Your task to perform on an android device: Open calendar and show me the fourth week of next month Image 0: 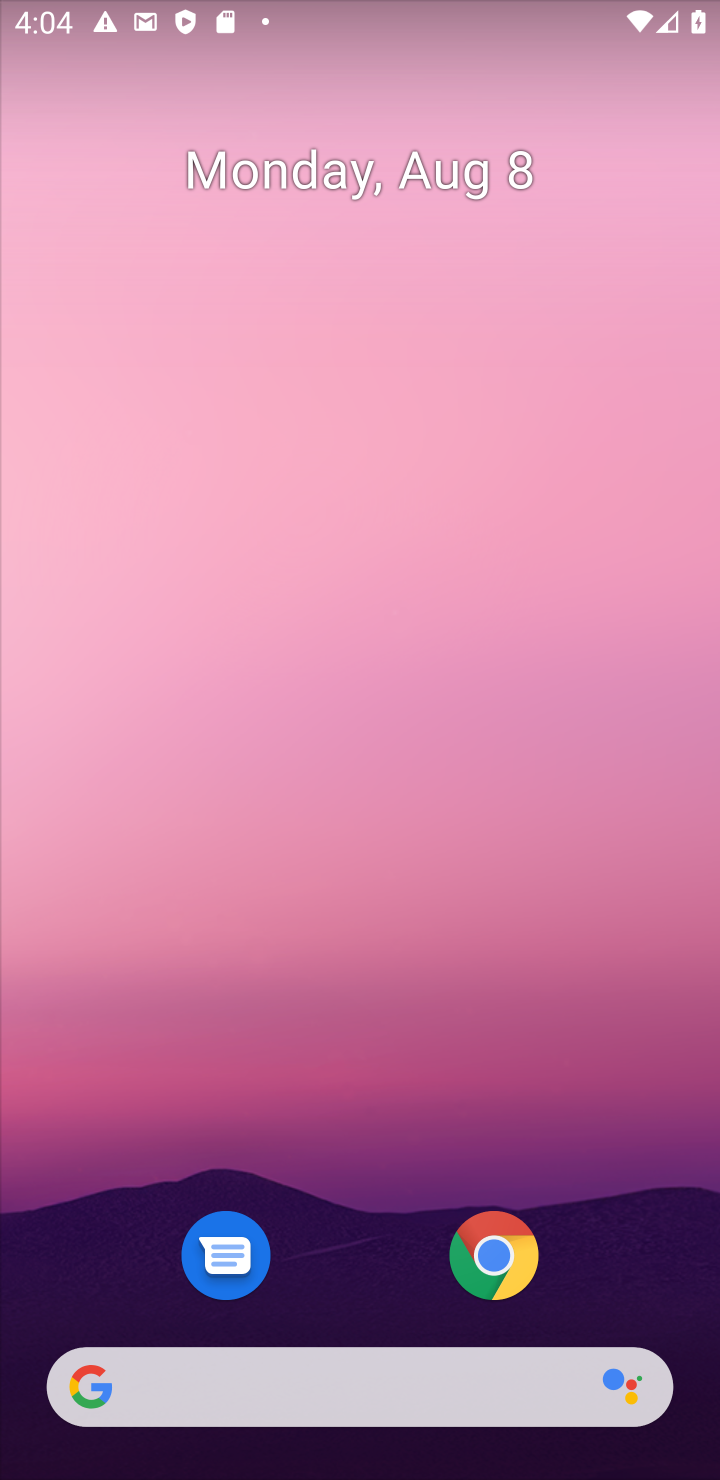
Step 0: press home button
Your task to perform on an android device: Open calendar and show me the fourth week of next month Image 1: 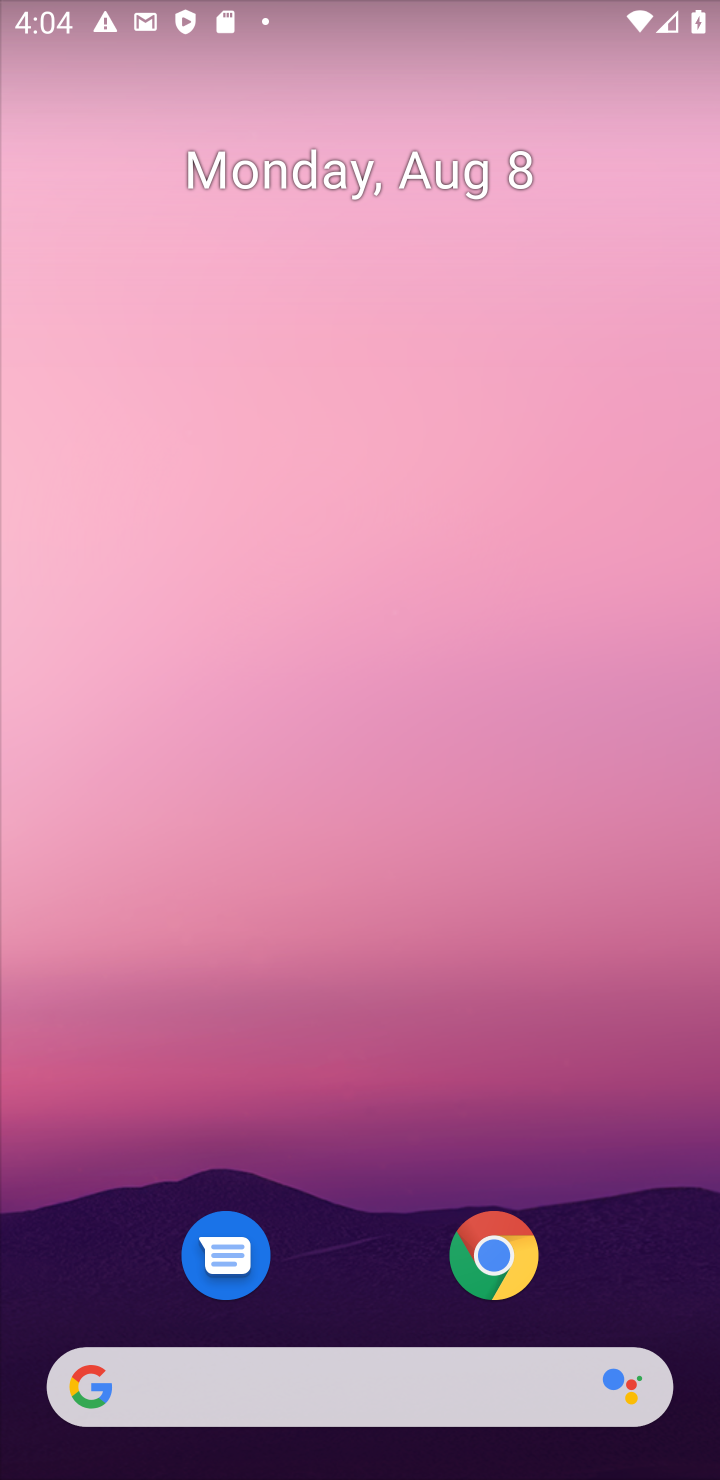
Step 1: drag from (308, 1340) to (276, 497)
Your task to perform on an android device: Open calendar and show me the fourth week of next month Image 2: 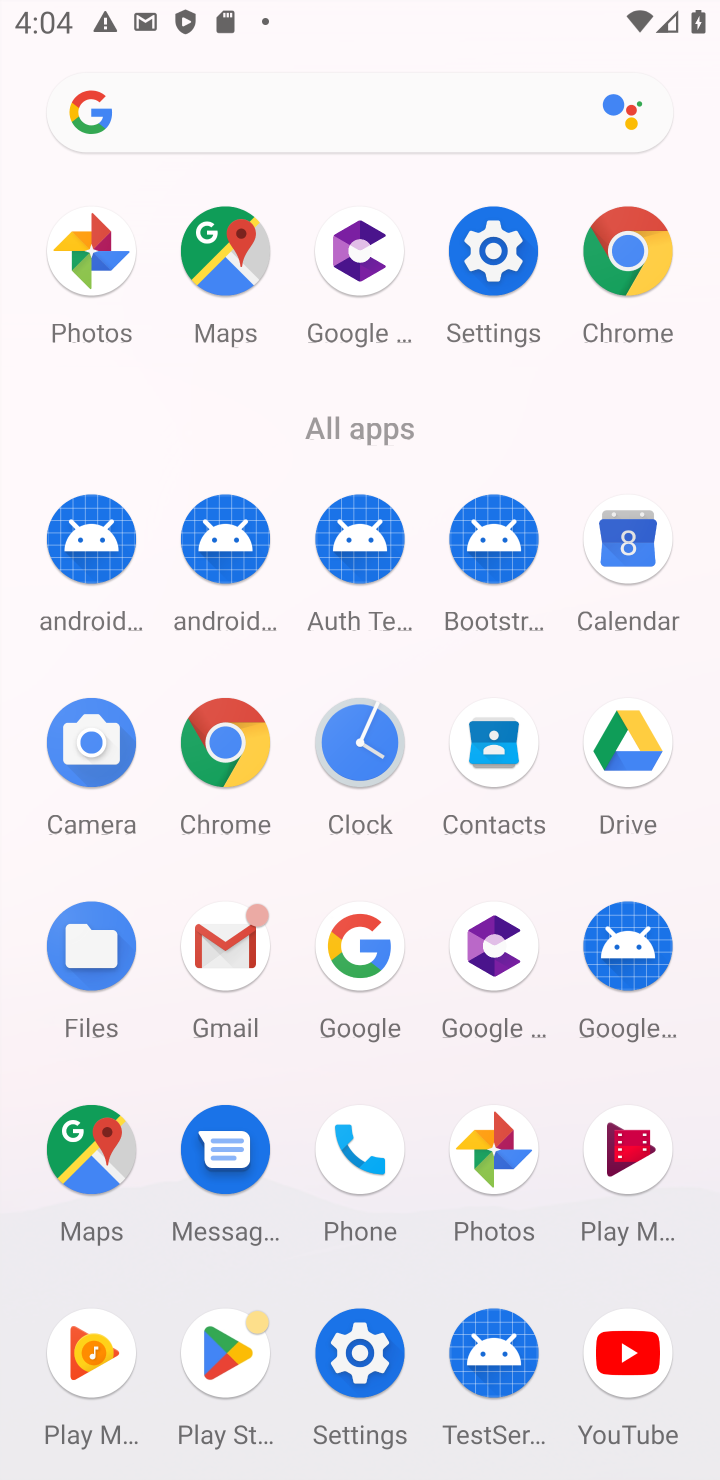
Step 2: click (627, 545)
Your task to perform on an android device: Open calendar and show me the fourth week of next month Image 3: 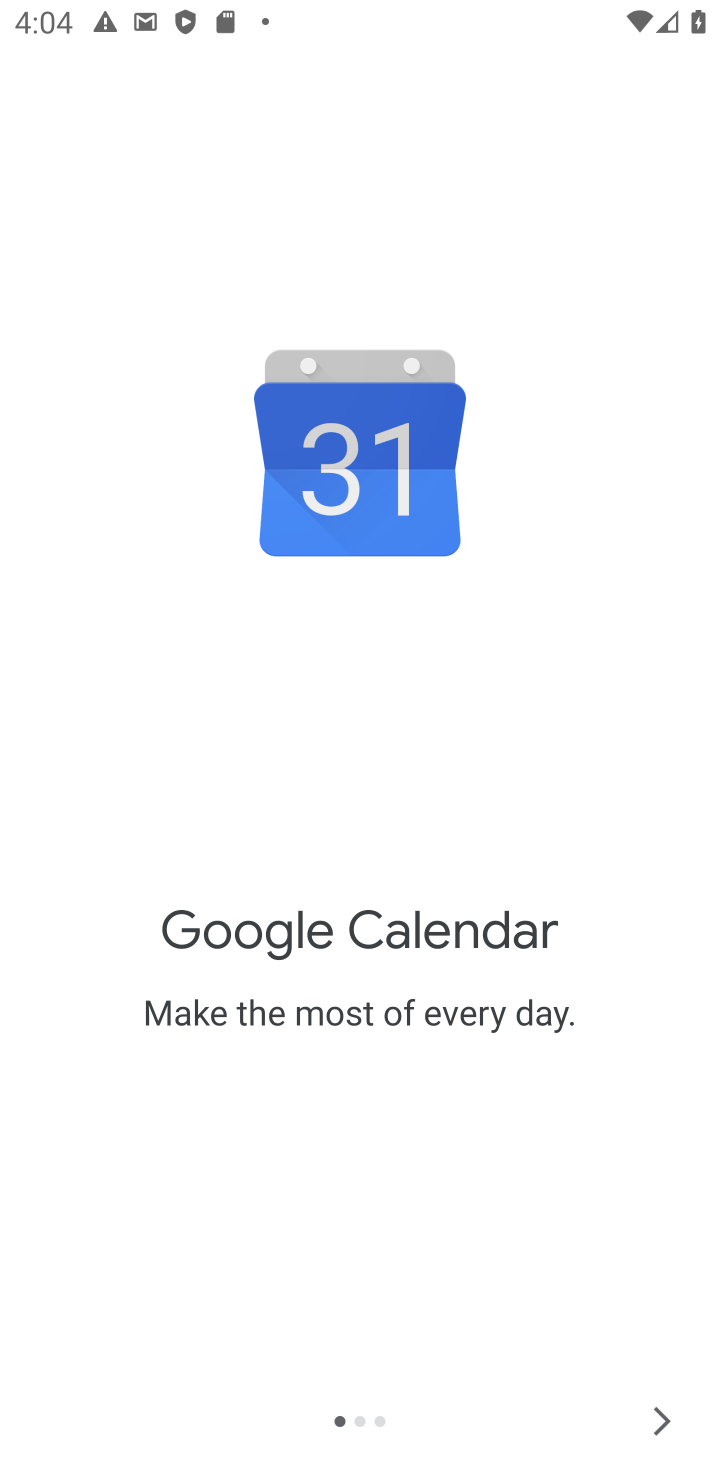
Step 3: click (661, 1418)
Your task to perform on an android device: Open calendar and show me the fourth week of next month Image 4: 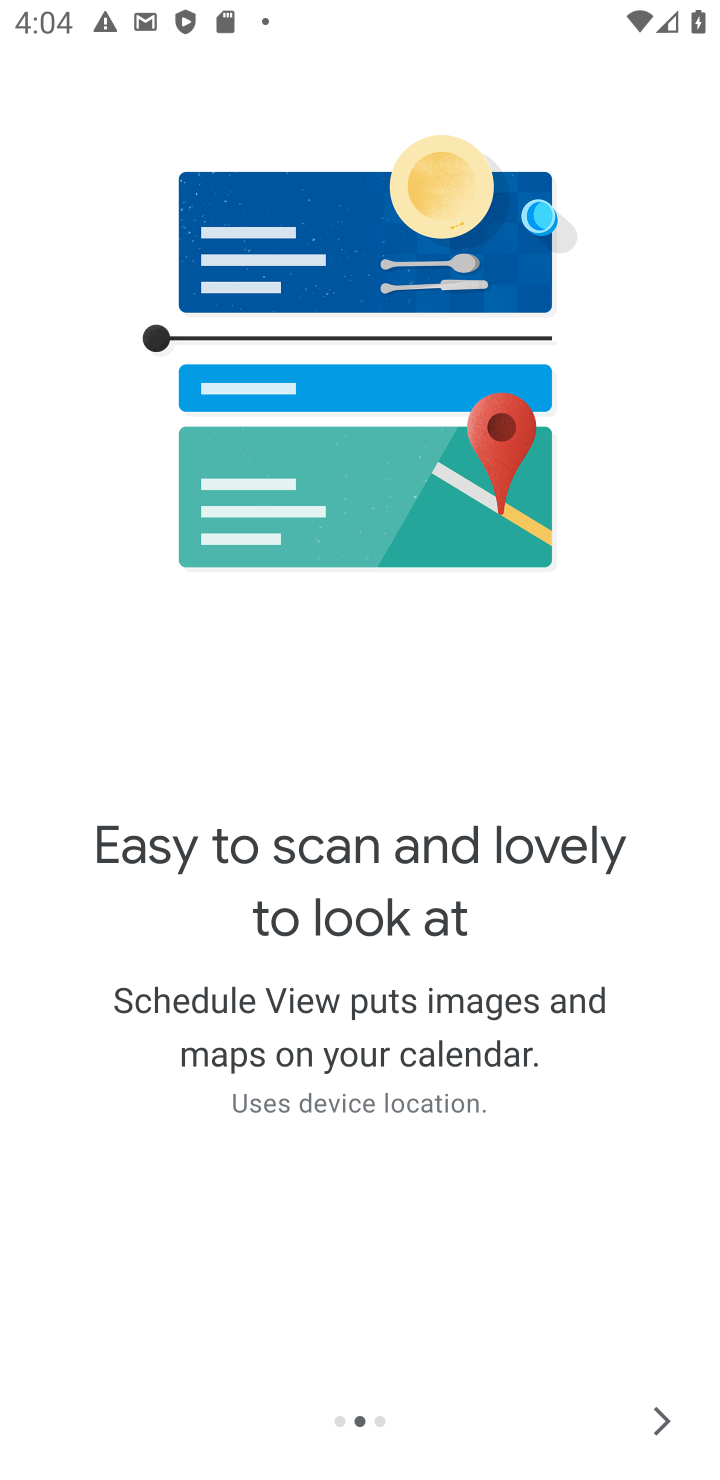
Step 4: click (661, 1418)
Your task to perform on an android device: Open calendar and show me the fourth week of next month Image 5: 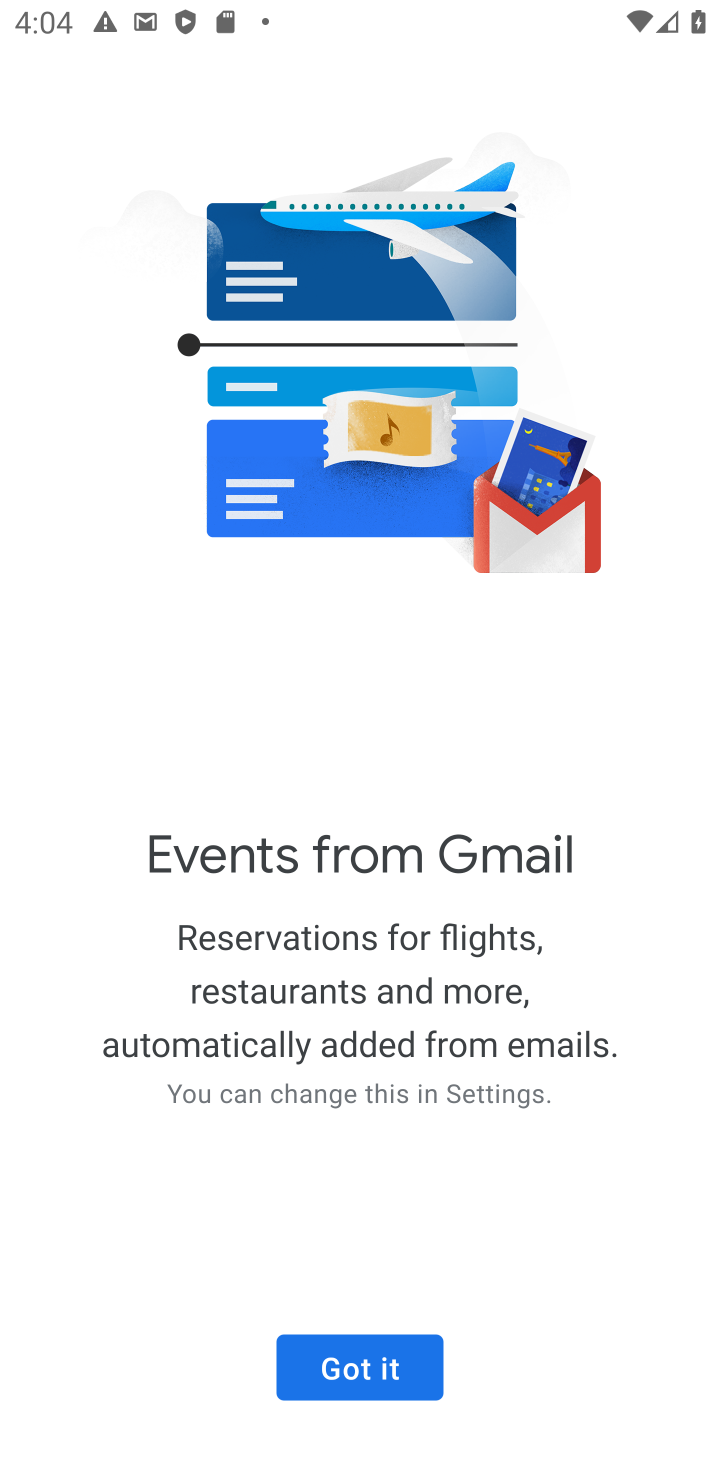
Step 5: click (386, 1383)
Your task to perform on an android device: Open calendar and show me the fourth week of next month Image 6: 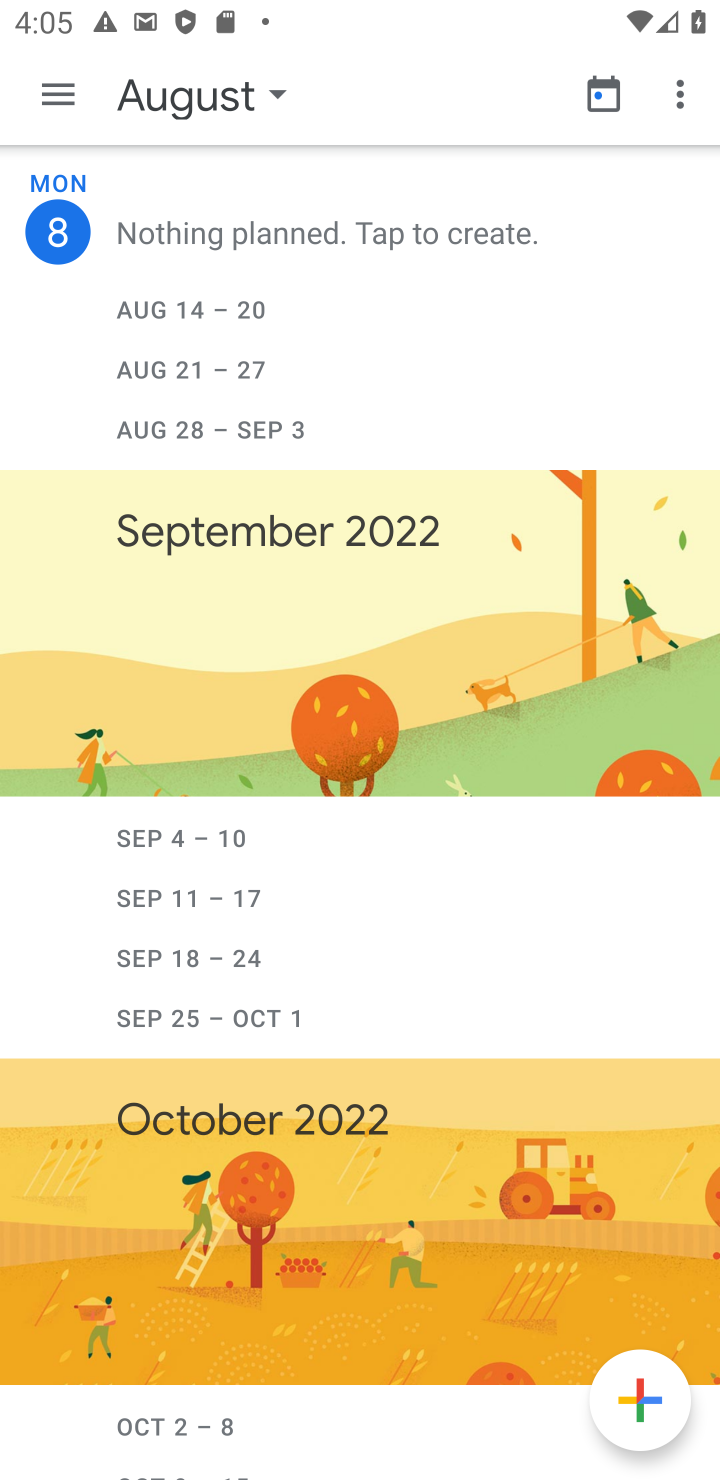
Step 6: click (272, 102)
Your task to perform on an android device: Open calendar and show me the fourth week of next month Image 7: 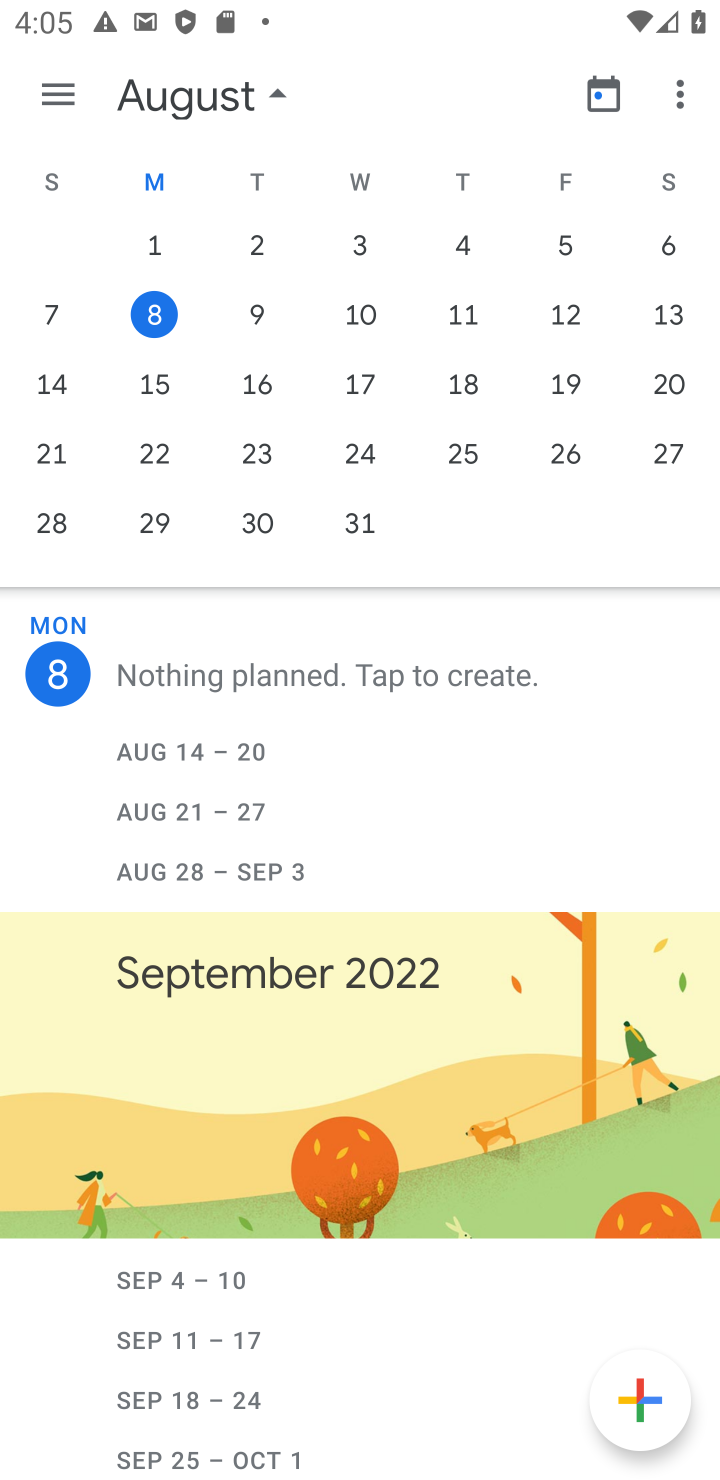
Step 7: drag from (660, 404) to (8, 465)
Your task to perform on an android device: Open calendar and show me the fourth week of next month Image 8: 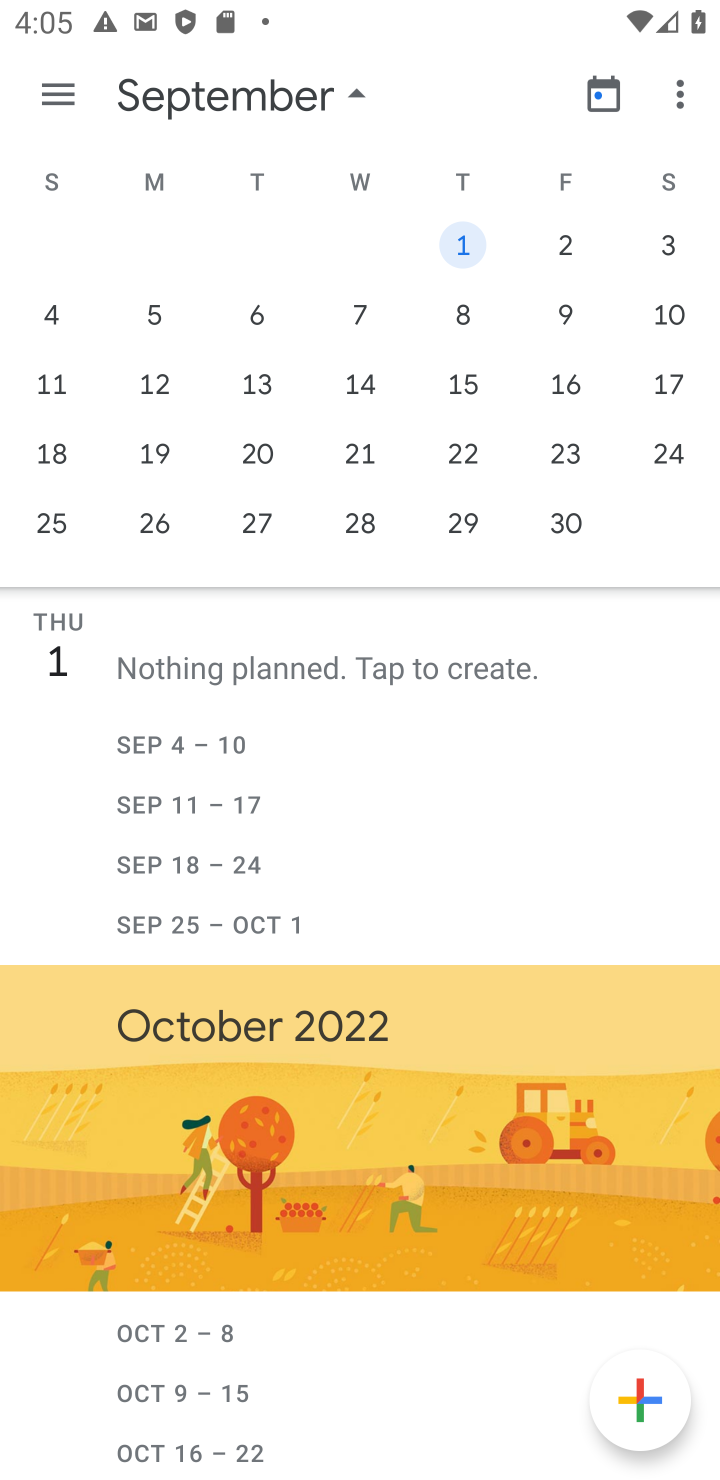
Step 8: click (160, 534)
Your task to perform on an android device: Open calendar and show me the fourth week of next month Image 9: 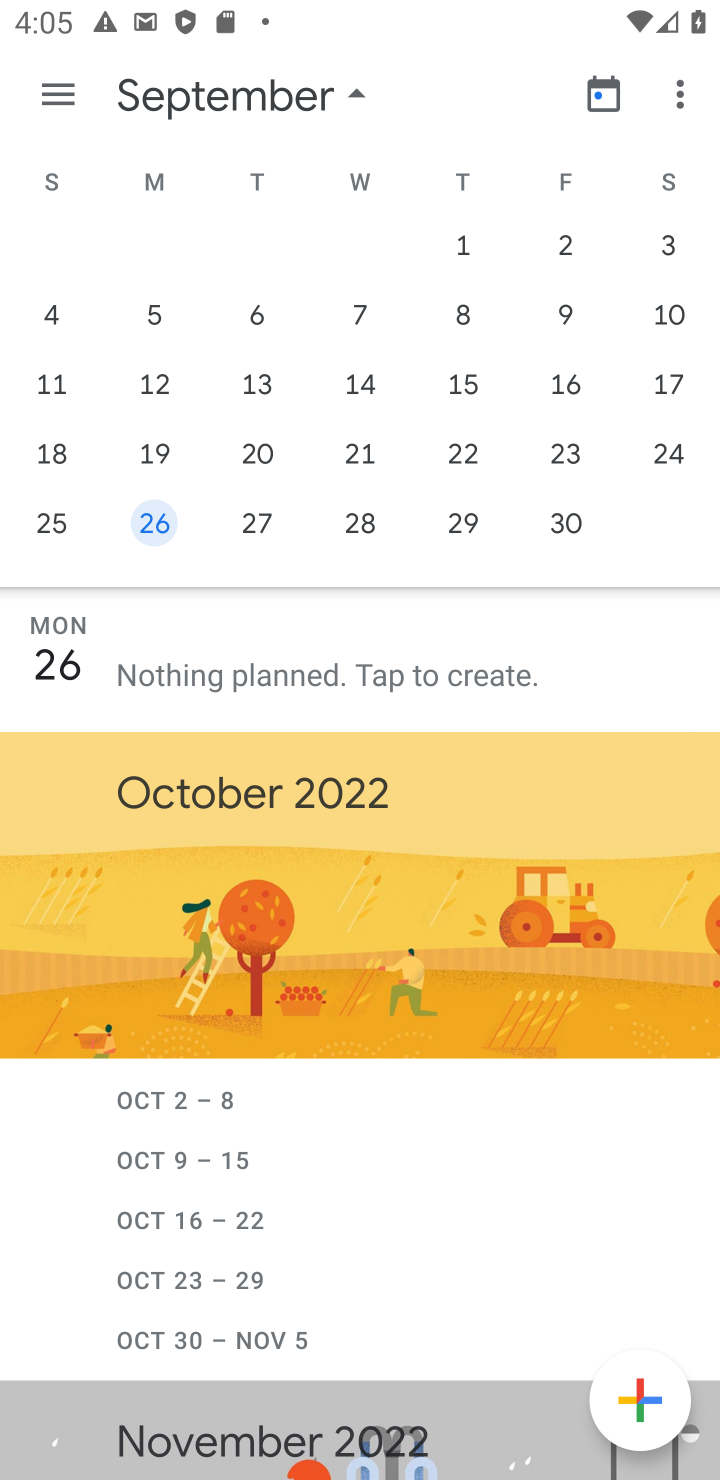
Step 9: click (66, 87)
Your task to perform on an android device: Open calendar and show me the fourth week of next month Image 10: 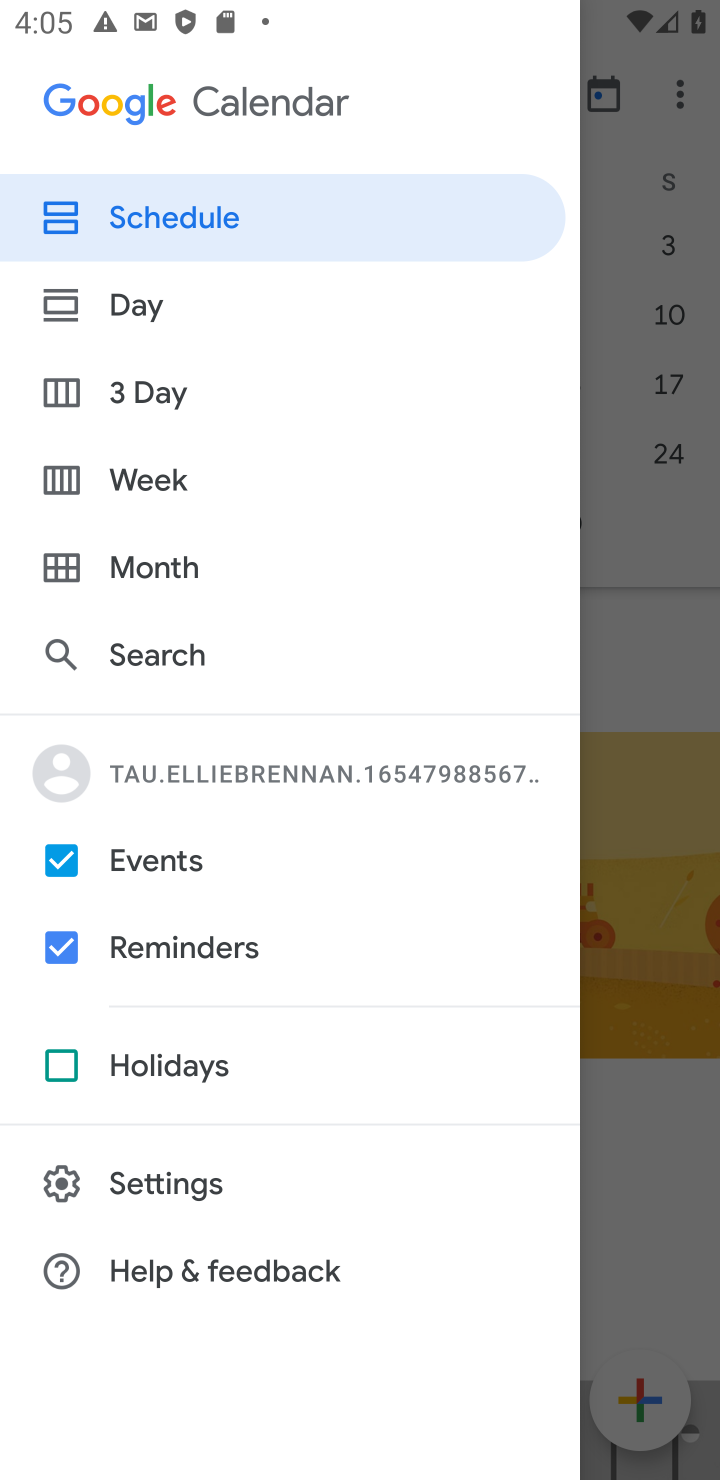
Step 10: click (160, 475)
Your task to perform on an android device: Open calendar and show me the fourth week of next month Image 11: 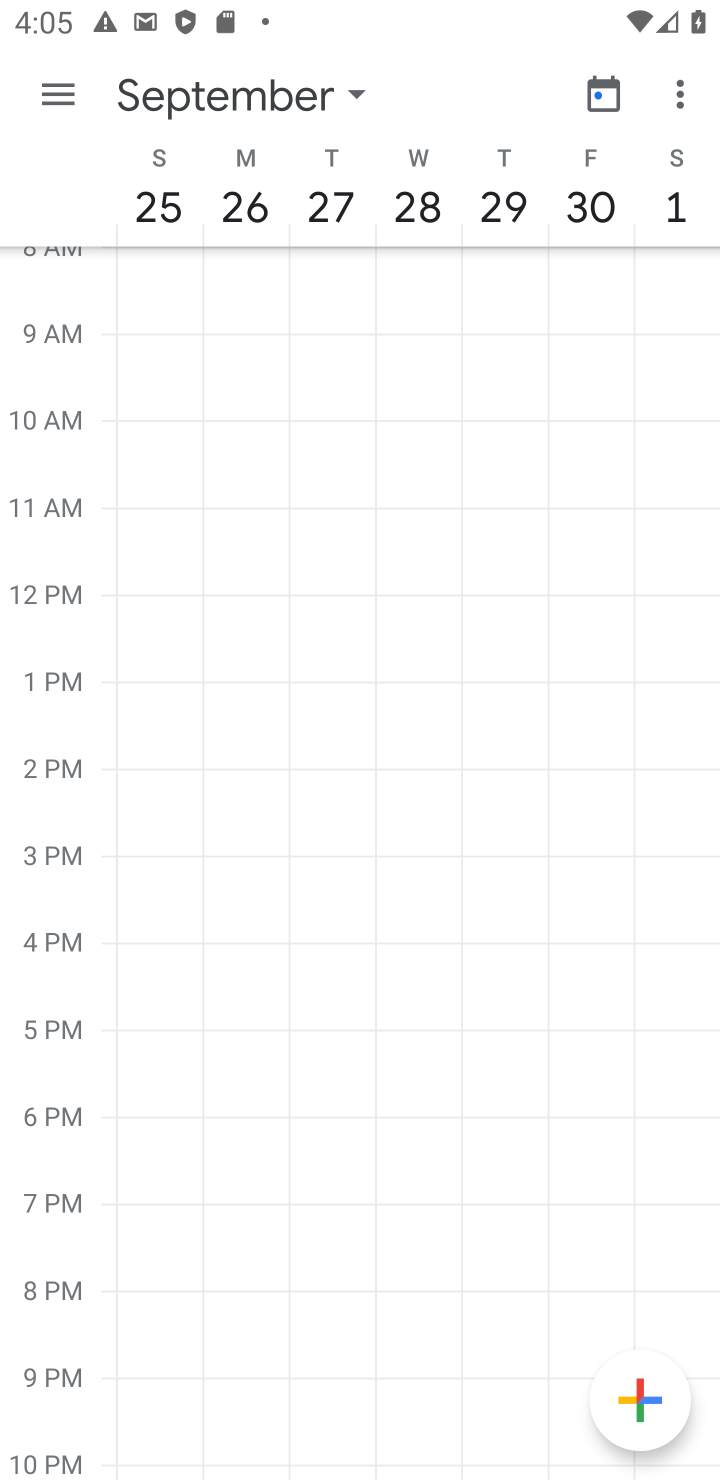
Step 11: task complete